Your task to perform on an android device: Open calendar and show me the second week of next month Image 0: 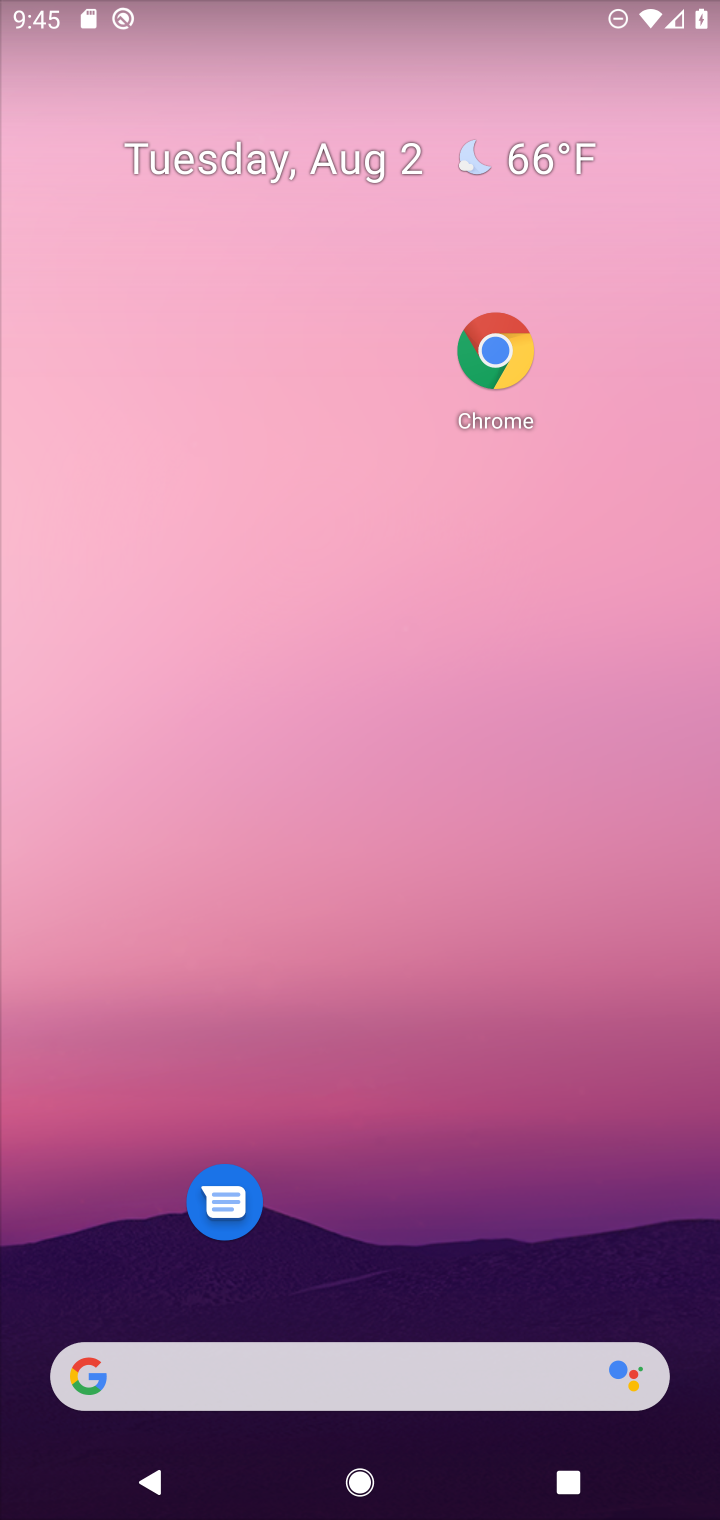
Step 0: drag from (418, 1335) to (362, 38)
Your task to perform on an android device: Open calendar and show me the second week of next month Image 1: 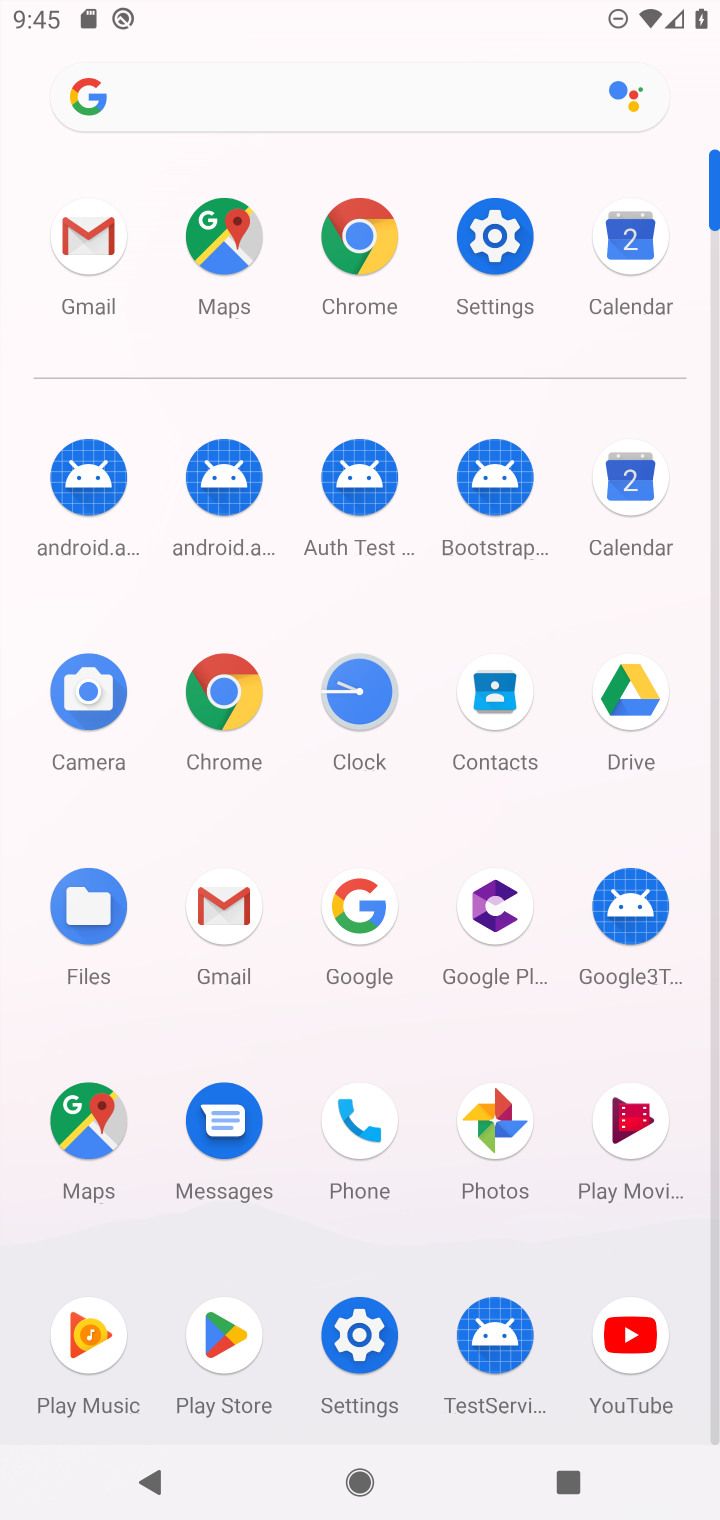
Step 1: click (628, 253)
Your task to perform on an android device: Open calendar and show me the second week of next month Image 2: 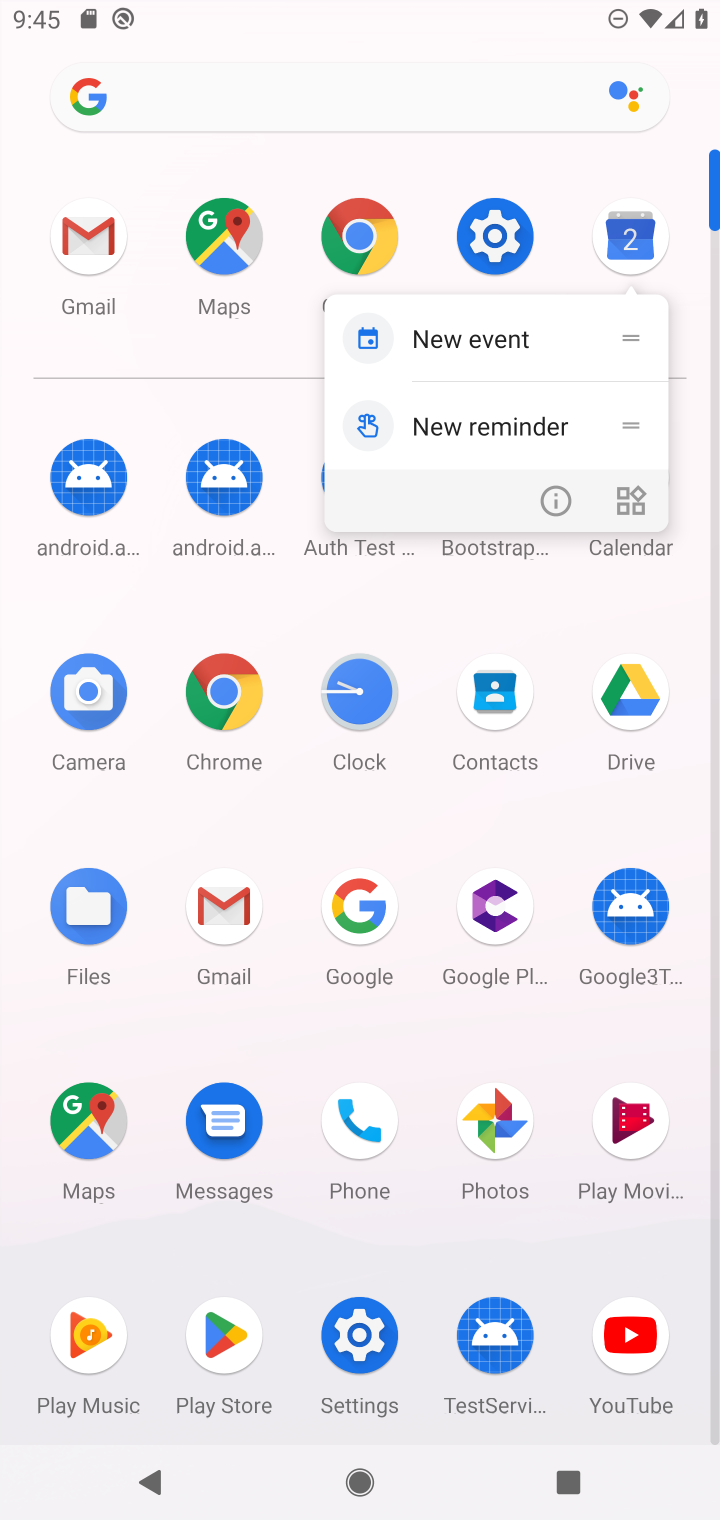
Step 2: click (628, 240)
Your task to perform on an android device: Open calendar and show me the second week of next month Image 3: 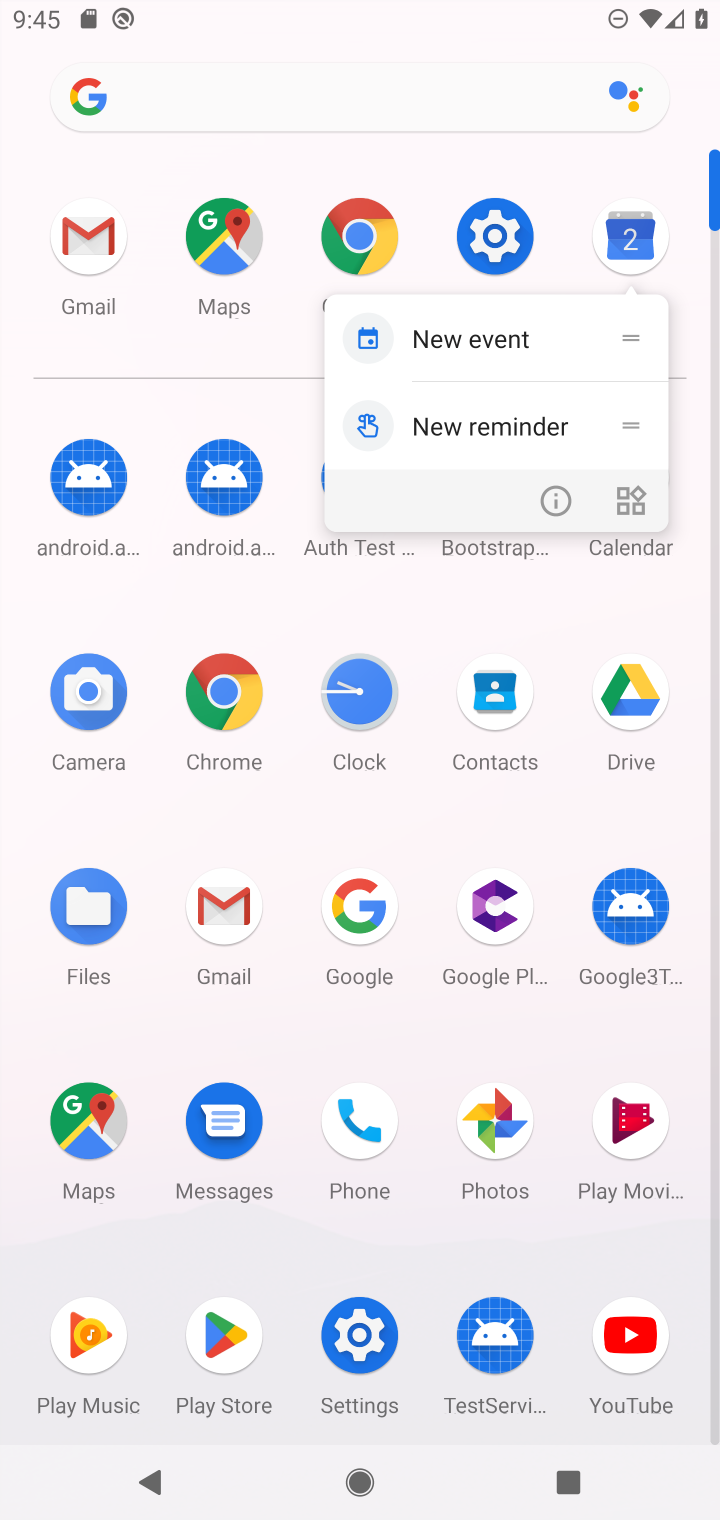
Step 3: click (628, 240)
Your task to perform on an android device: Open calendar and show me the second week of next month Image 4: 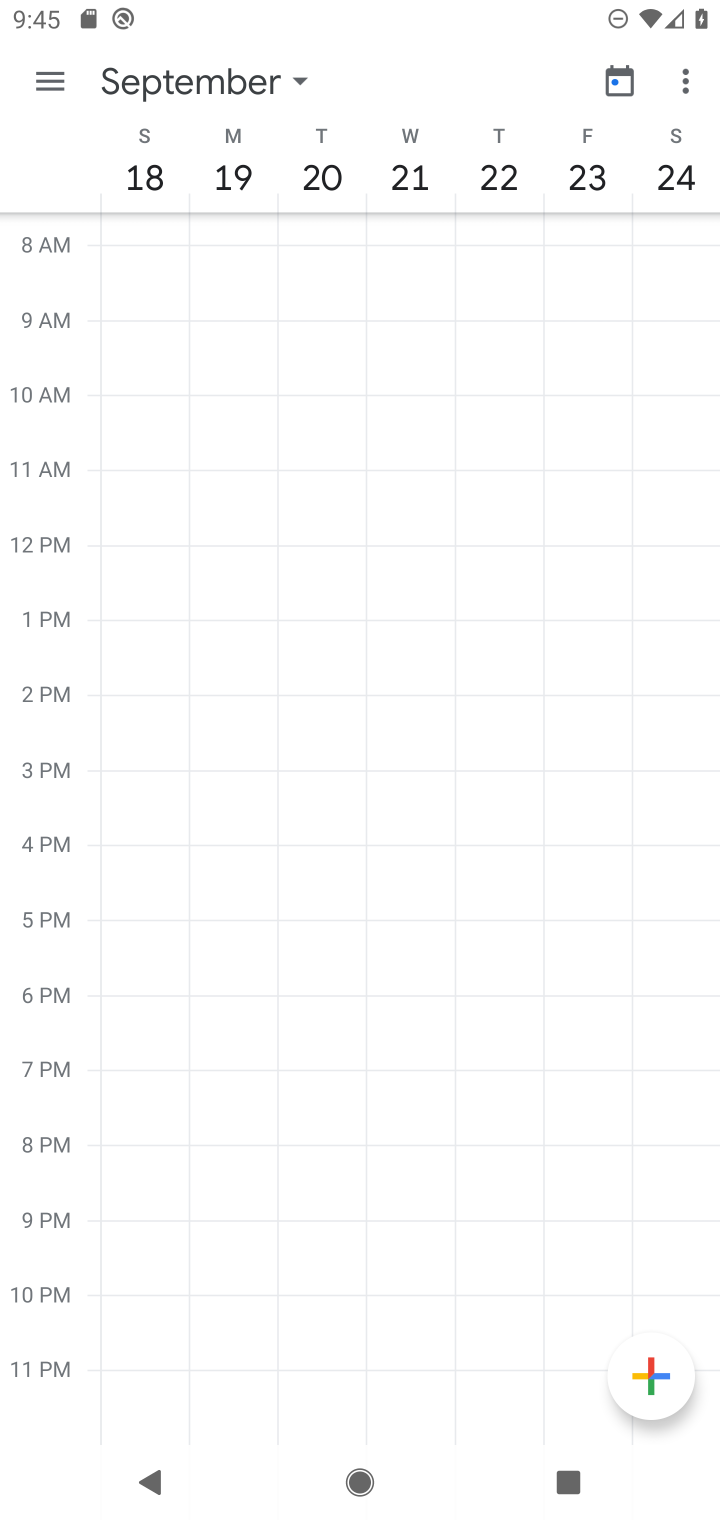
Step 4: click (614, 88)
Your task to perform on an android device: Open calendar and show me the second week of next month Image 5: 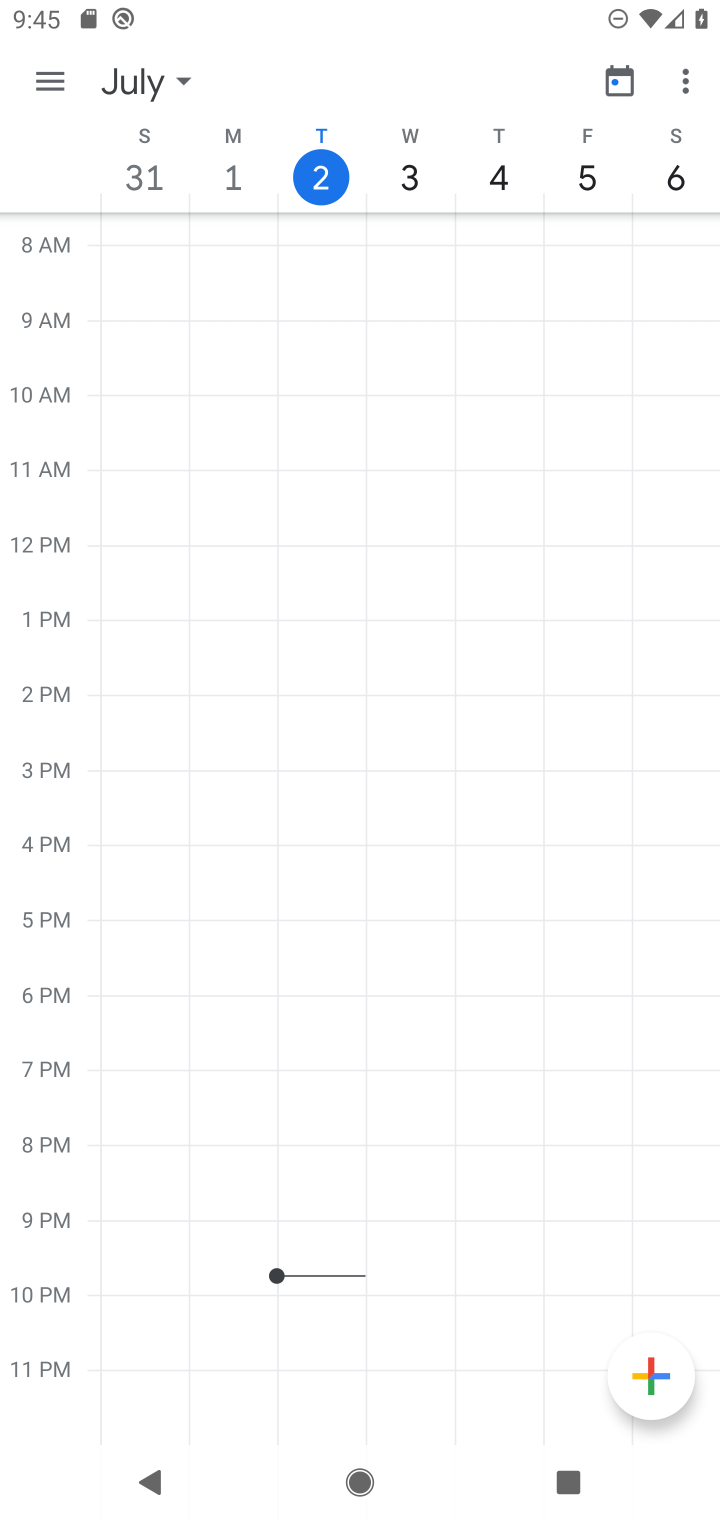
Step 5: click (188, 82)
Your task to perform on an android device: Open calendar and show me the second week of next month Image 6: 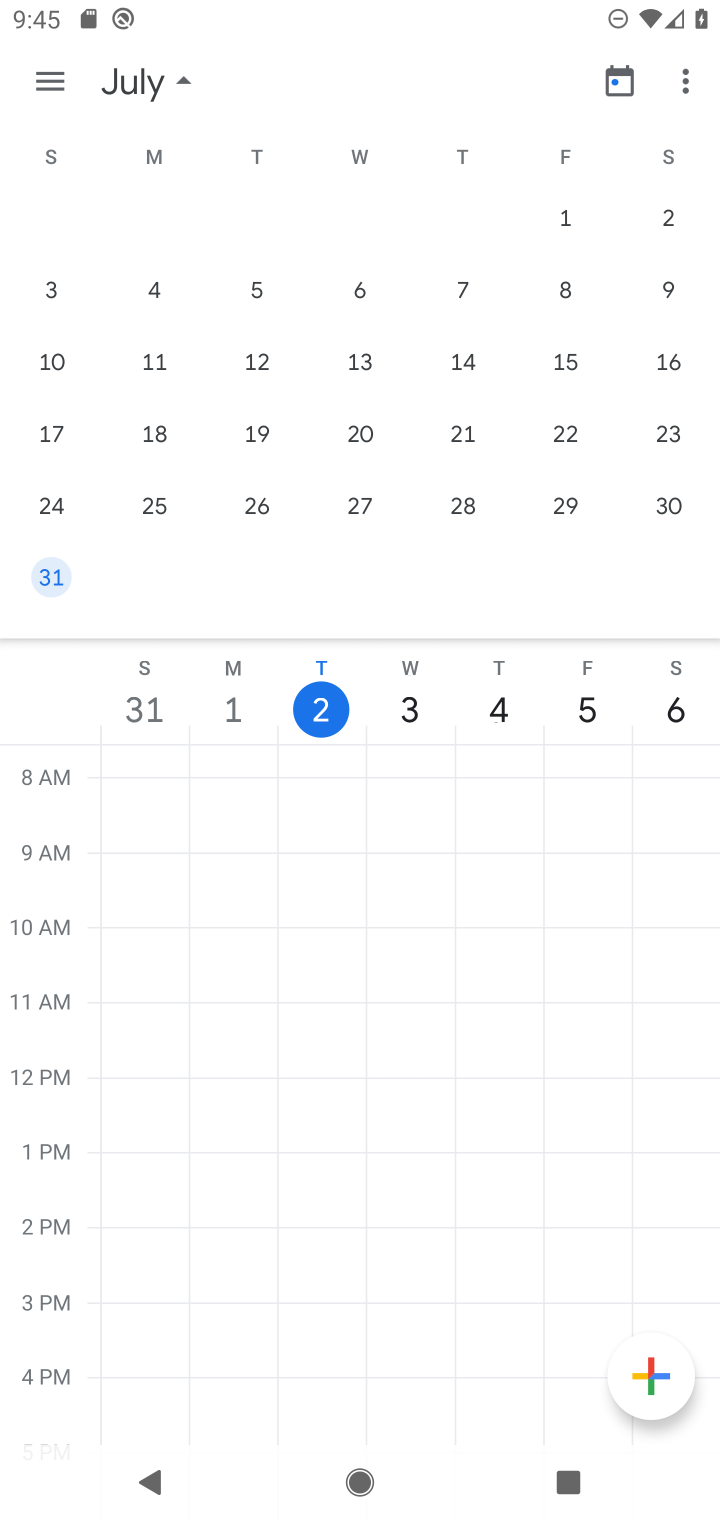
Step 6: drag from (645, 443) to (4, 536)
Your task to perform on an android device: Open calendar and show me the second week of next month Image 7: 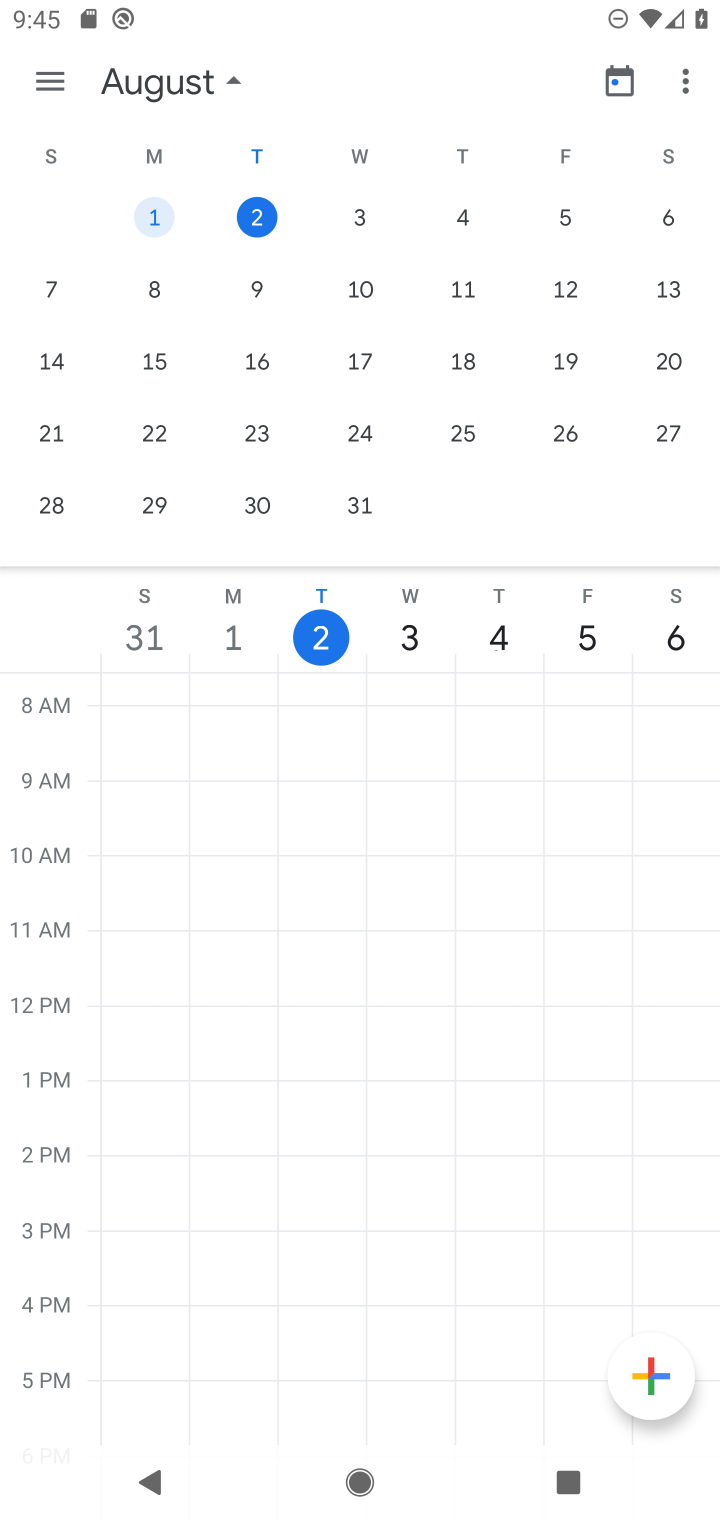
Step 7: drag from (612, 346) to (4, 102)
Your task to perform on an android device: Open calendar and show me the second week of next month Image 8: 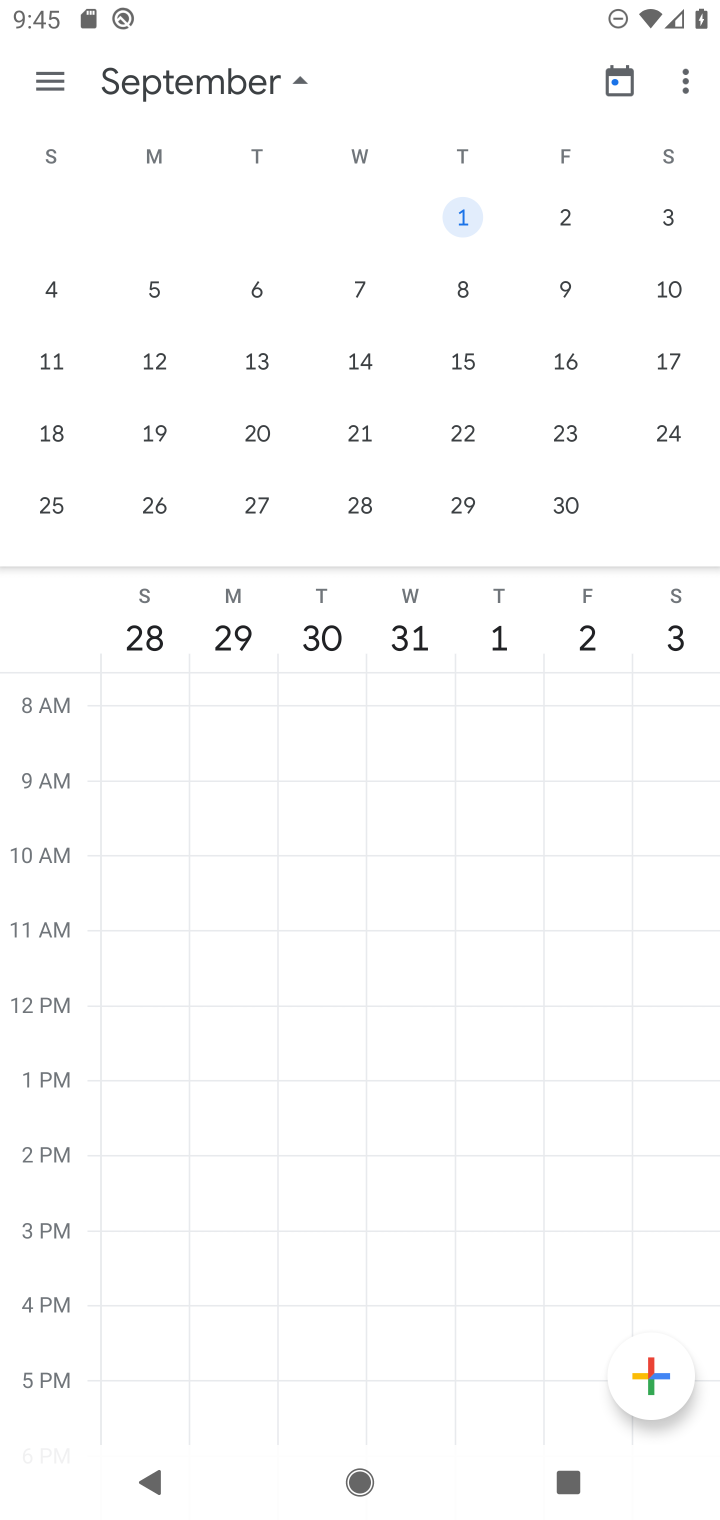
Step 8: click (45, 78)
Your task to perform on an android device: Open calendar and show me the second week of next month Image 9: 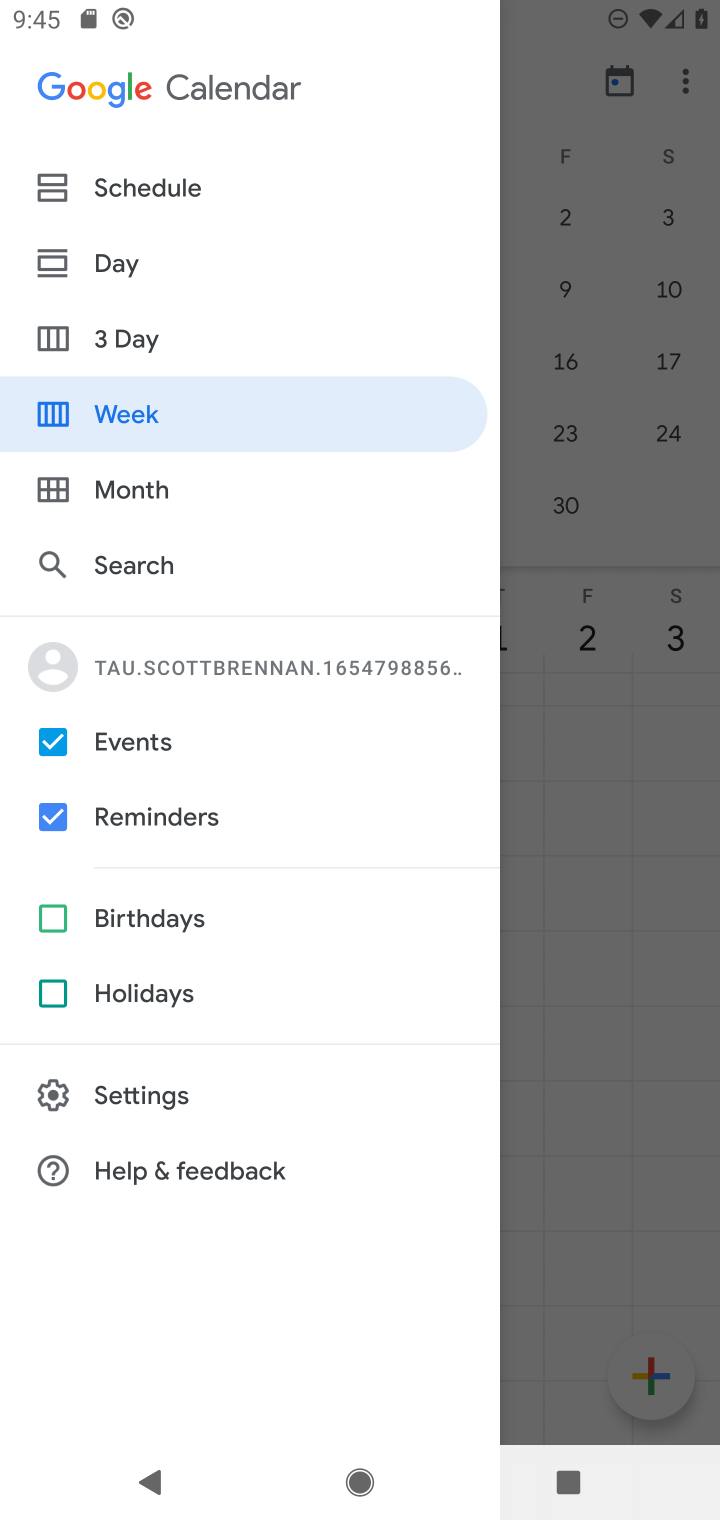
Step 9: click (117, 421)
Your task to perform on an android device: Open calendar and show me the second week of next month Image 10: 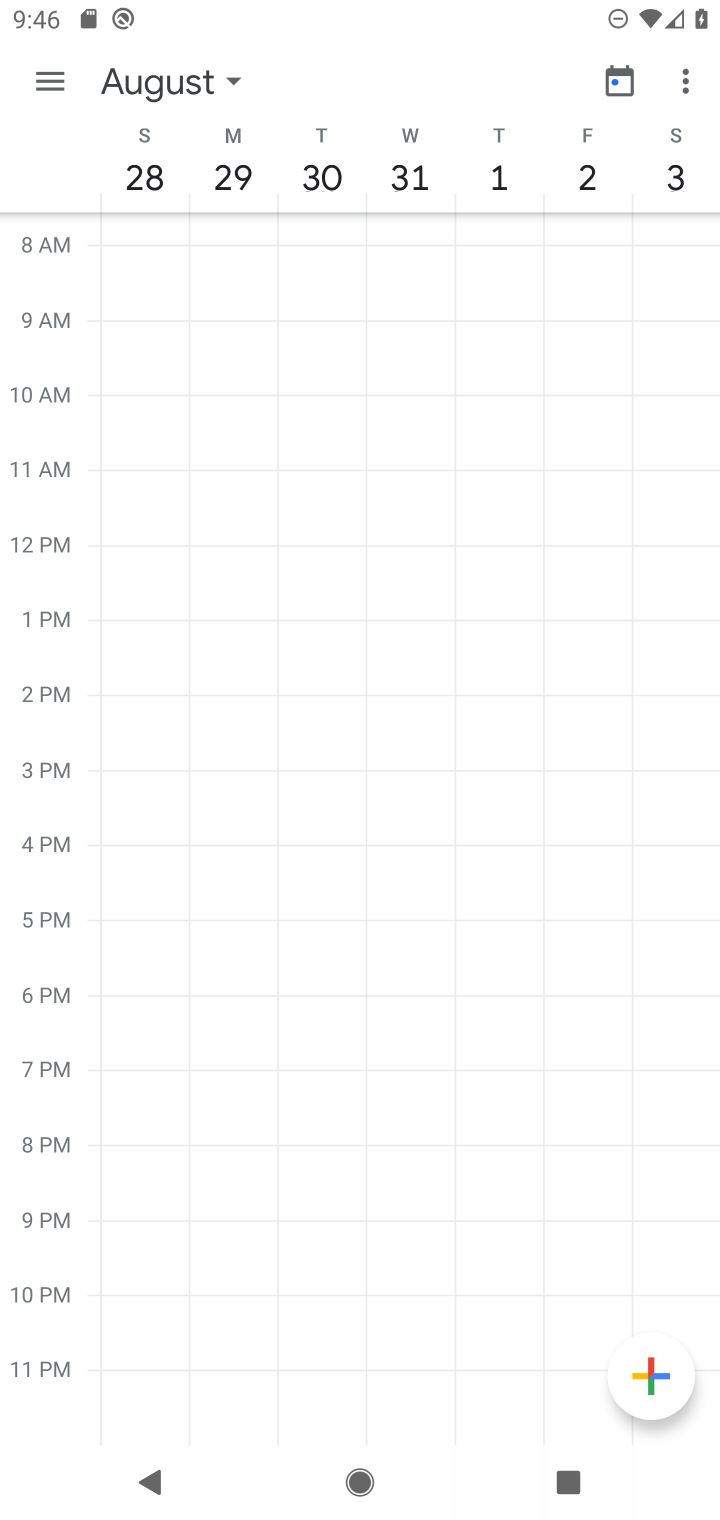
Step 10: task complete